Your task to perform on an android device: find photos in the google photos app Image 0: 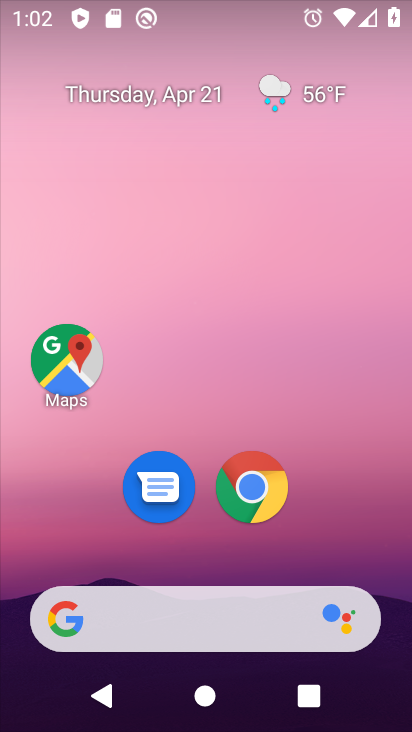
Step 0: drag from (349, 558) to (350, 48)
Your task to perform on an android device: find photos in the google photos app Image 1: 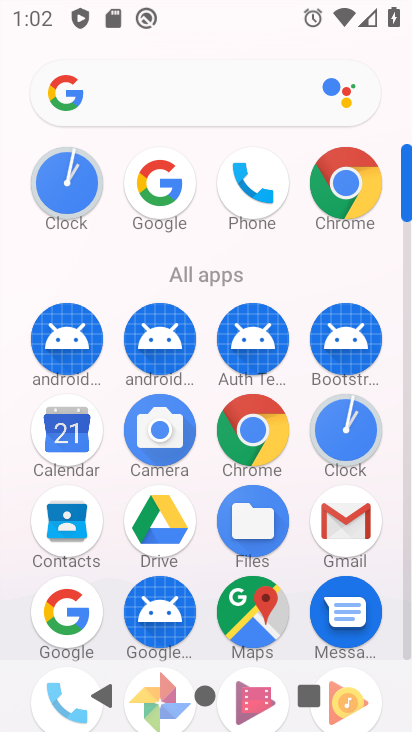
Step 1: drag from (205, 602) to (205, 349)
Your task to perform on an android device: find photos in the google photos app Image 2: 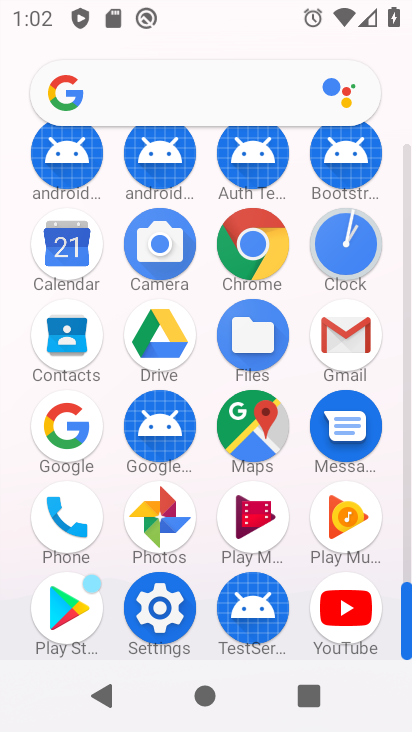
Step 2: click (164, 509)
Your task to perform on an android device: find photos in the google photos app Image 3: 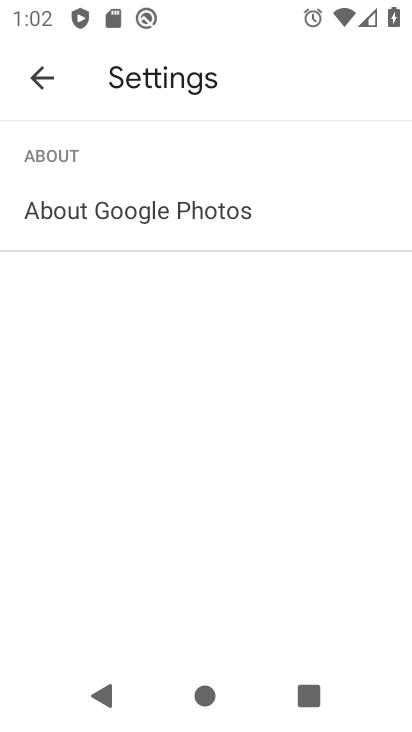
Step 3: click (40, 81)
Your task to perform on an android device: find photos in the google photos app Image 4: 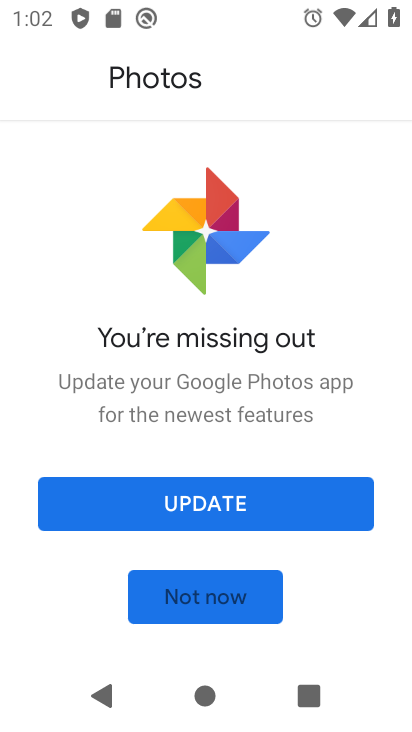
Step 4: click (219, 506)
Your task to perform on an android device: find photos in the google photos app Image 5: 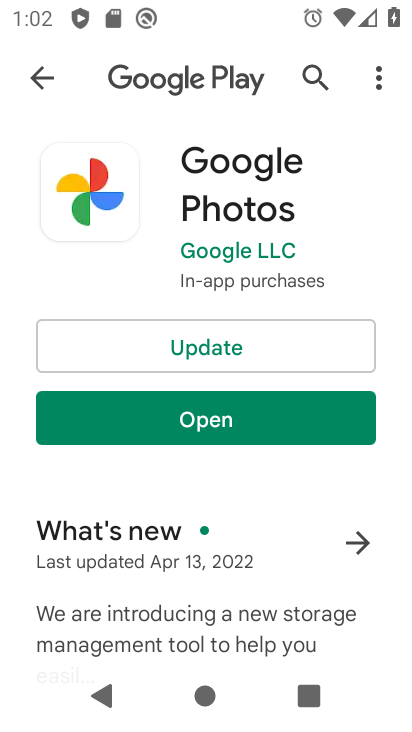
Step 5: click (190, 314)
Your task to perform on an android device: find photos in the google photos app Image 6: 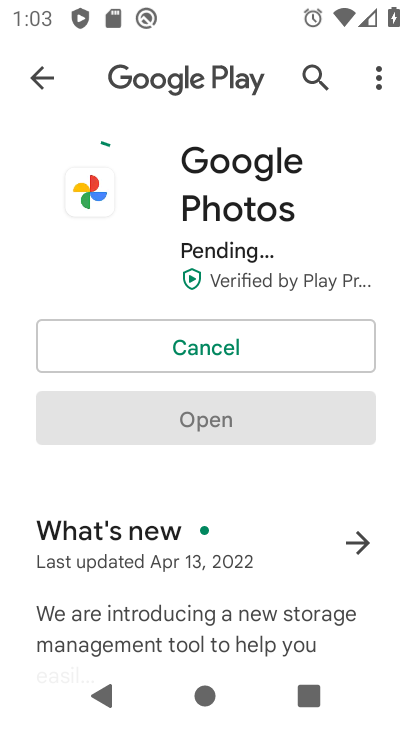
Step 6: drag from (220, 578) to (203, 539)
Your task to perform on an android device: find photos in the google photos app Image 7: 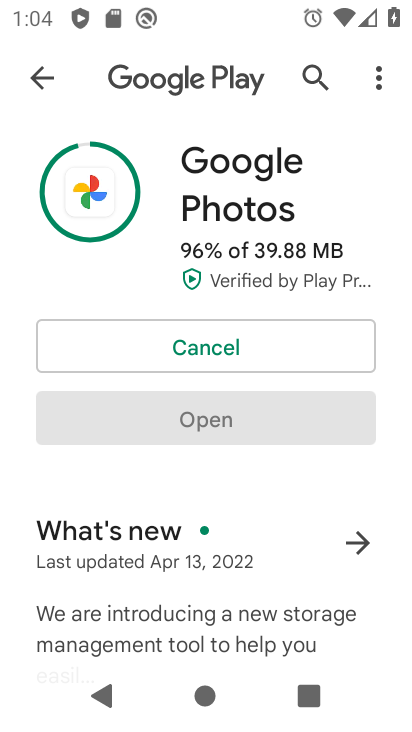
Step 7: click (181, 424)
Your task to perform on an android device: find photos in the google photos app Image 8: 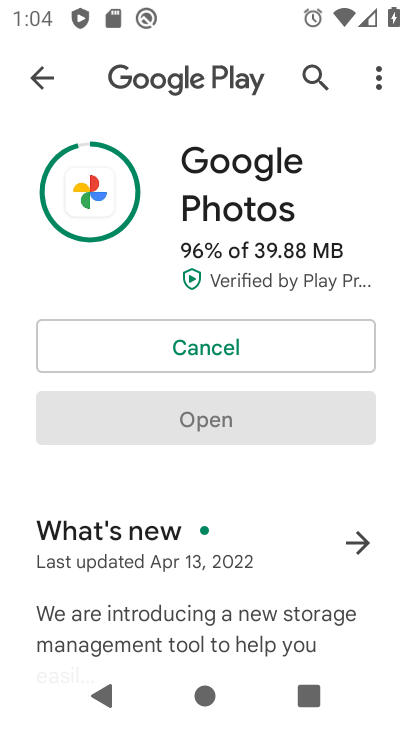
Step 8: drag from (263, 205) to (203, 607)
Your task to perform on an android device: find photos in the google photos app Image 9: 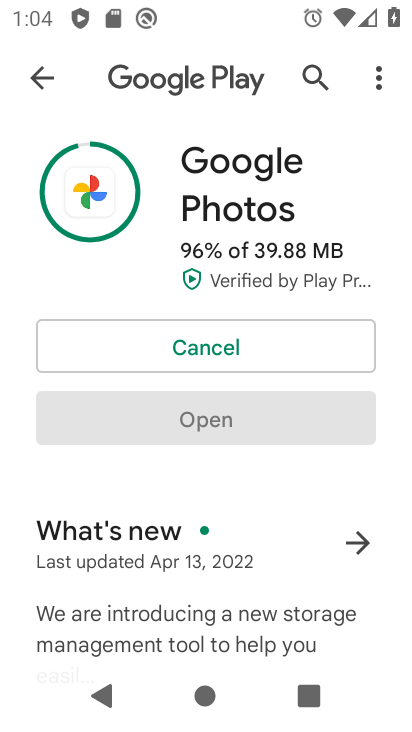
Step 9: click (195, 412)
Your task to perform on an android device: find photos in the google photos app Image 10: 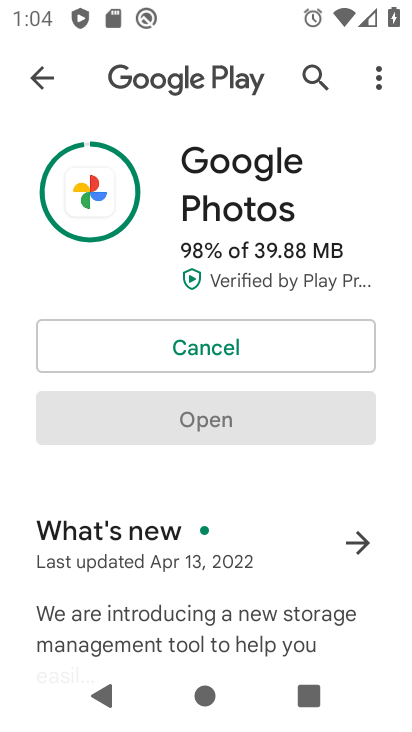
Step 10: click (195, 412)
Your task to perform on an android device: find photos in the google photos app Image 11: 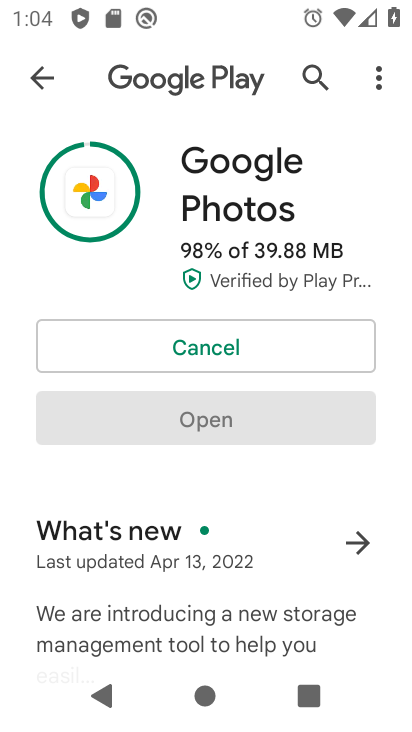
Step 11: click (195, 412)
Your task to perform on an android device: find photos in the google photos app Image 12: 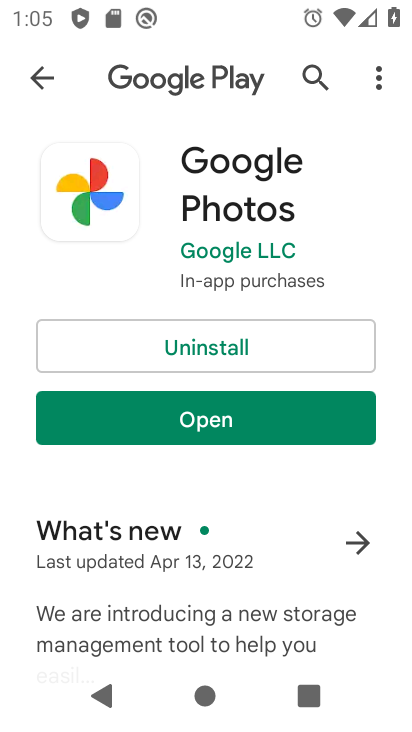
Step 12: click (192, 430)
Your task to perform on an android device: find photos in the google photos app Image 13: 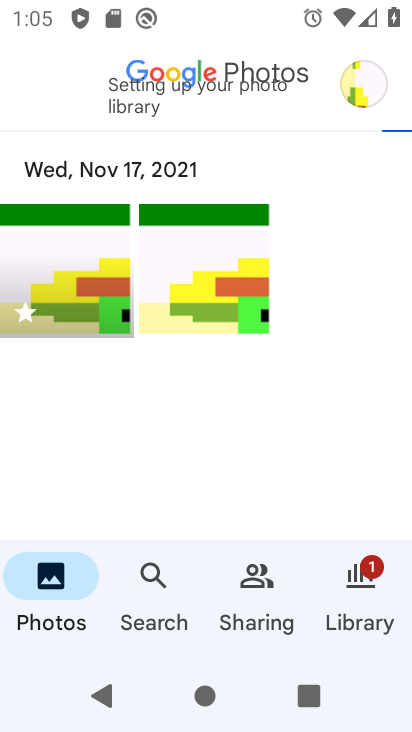
Step 13: task complete